Your task to perform on an android device: check android version Image 0: 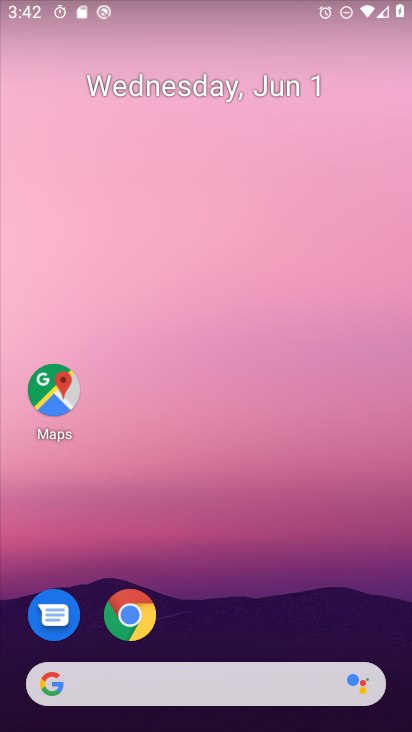
Step 0: drag from (220, 585) to (229, 119)
Your task to perform on an android device: check android version Image 1: 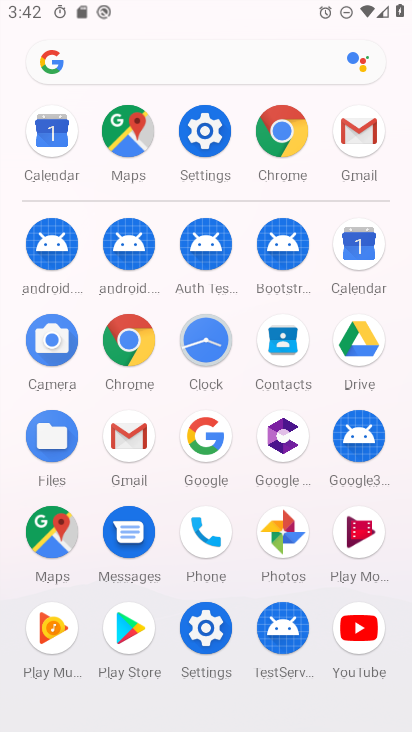
Step 1: click (205, 142)
Your task to perform on an android device: check android version Image 2: 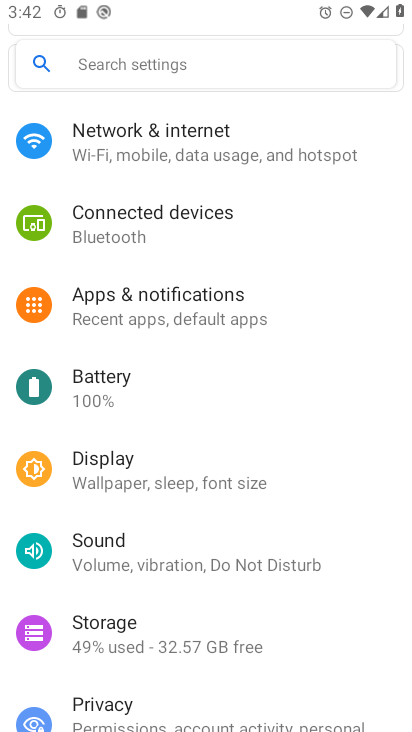
Step 2: drag from (236, 681) to (229, 182)
Your task to perform on an android device: check android version Image 3: 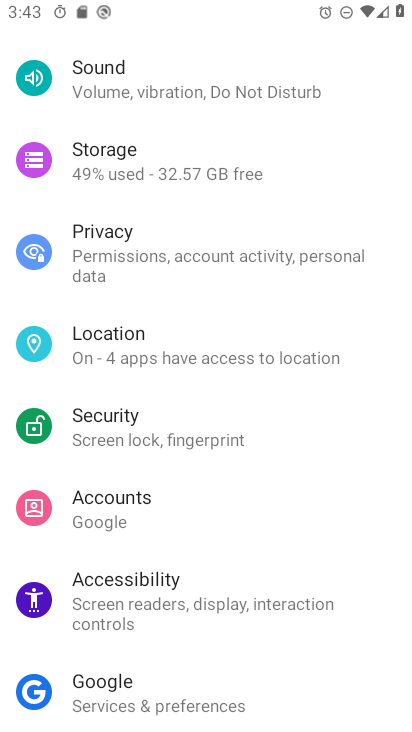
Step 3: drag from (255, 657) to (276, 170)
Your task to perform on an android device: check android version Image 4: 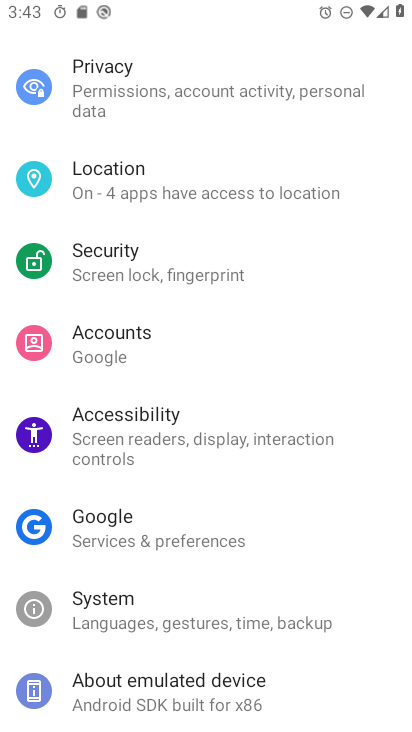
Step 4: click (238, 704)
Your task to perform on an android device: check android version Image 5: 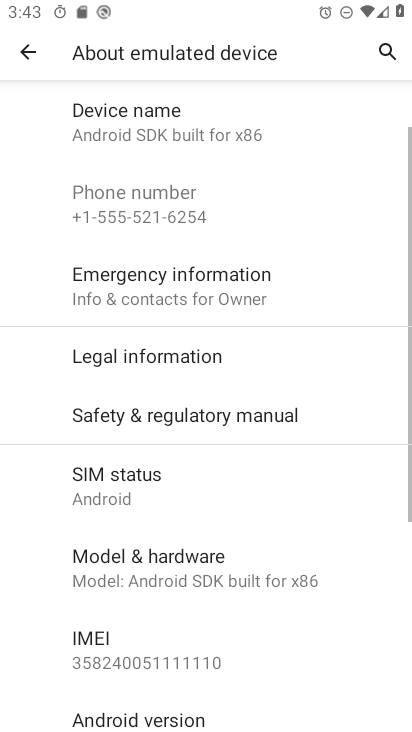
Step 5: drag from (276, 668) to (304, 156)
Your task to perform on an android device: check android version Image 6: 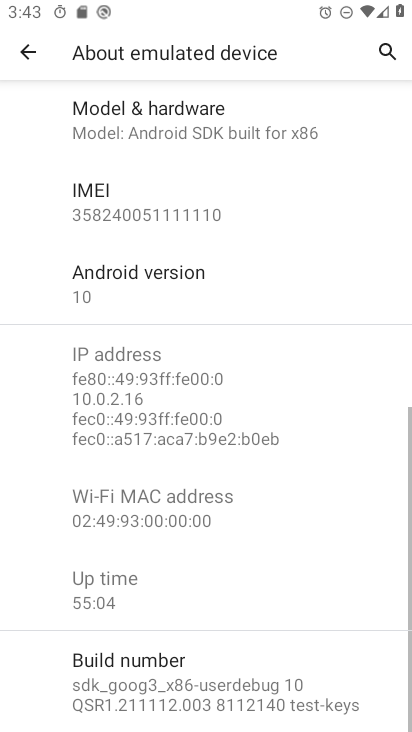
Step 6: click (206, 283)
Your task to perform on an android device: check android version Image 7: 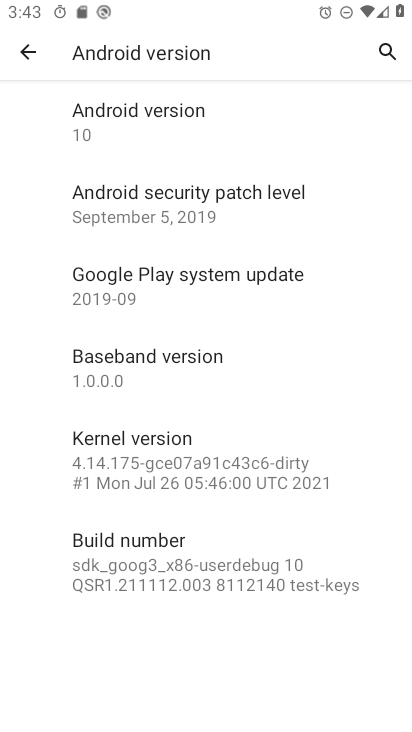
Step 7: click (149, 134)
Your task to perform on an android device: check android version Image 8: 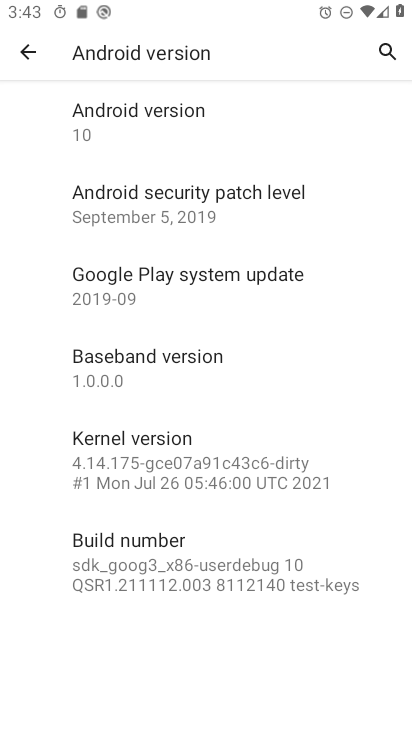
Step 8: click (217, 130)
Your task to perform on an android device: check android version Image 9: 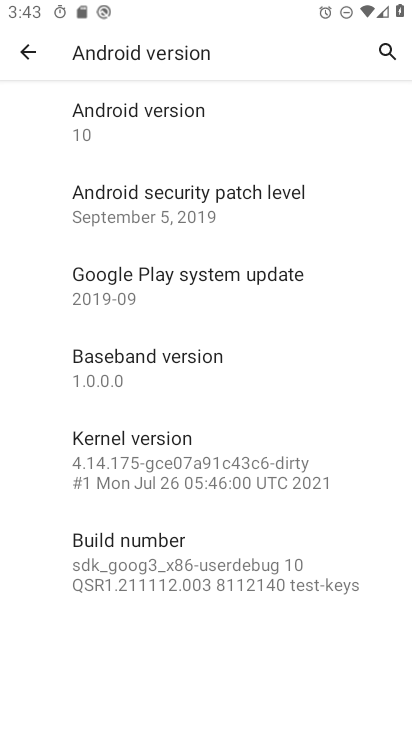
Step 9: task complete